Your task to perform on an android device: change the clock display to show seconds Image 0: 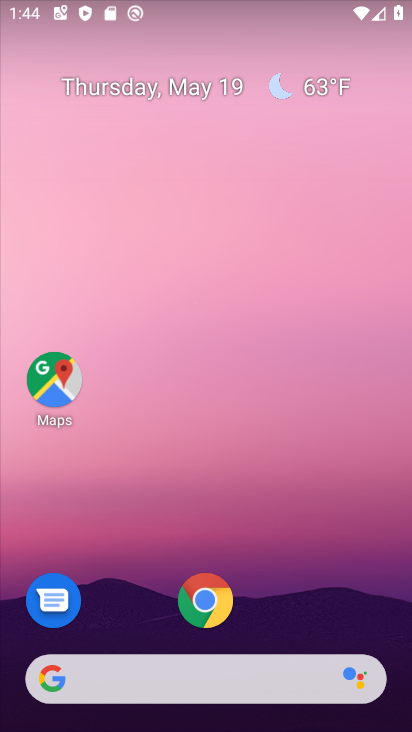
Step 0: drag from (386, 593) to (330, 189)
Your task to perform on an android device: change the clock display to show seconds Image 1: 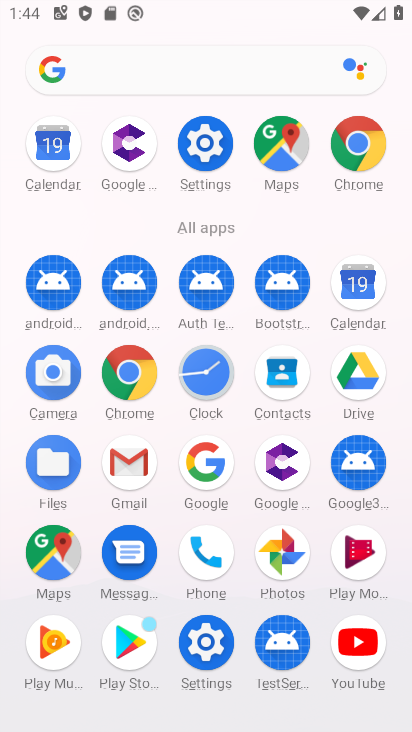
Step 1: click (204, 366)
Your task to perform on an android device: change the clock display to show seconds Image 2: 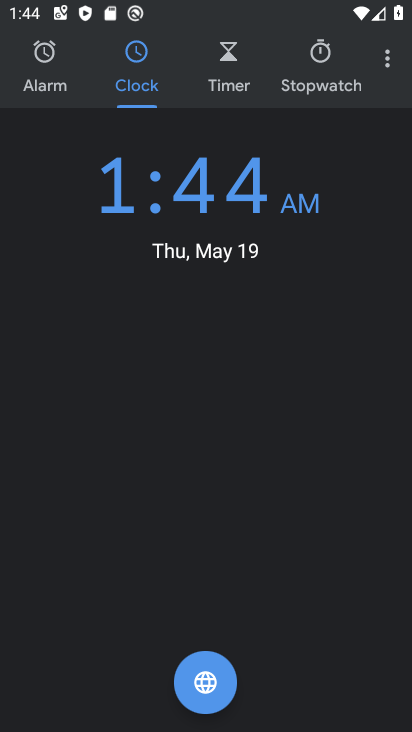
Step 2: click (387, 67)
Your task to perform on an android device: change the clock display to show seconds Image 3: 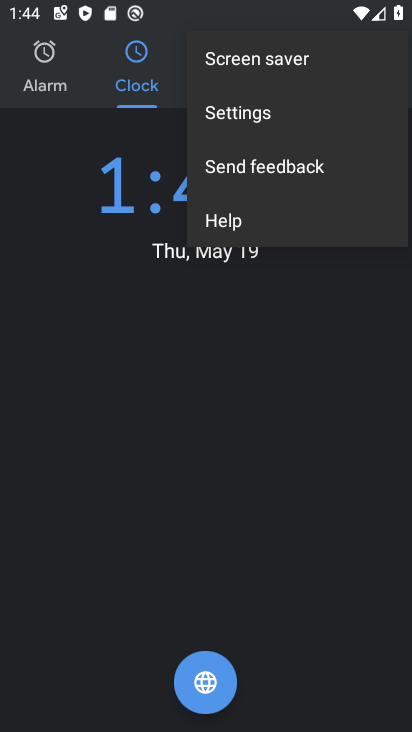
Step 3: click (272, 112)
Your task to perform on an android device: change the clock display to show seconds Image 4: 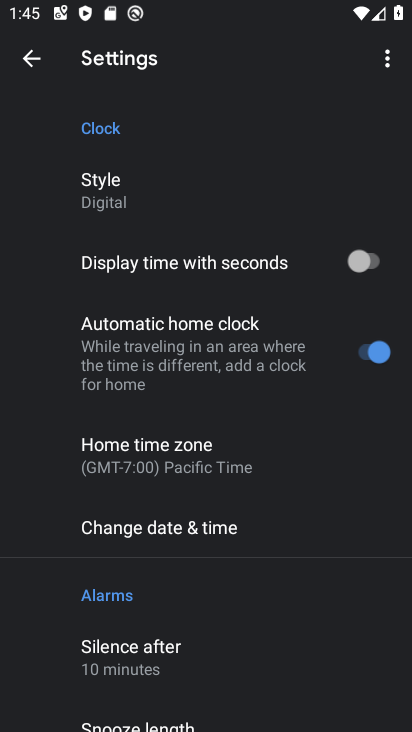
Step 4: click (357, 263)
Your task to perform on an android device: change the clock display to show seconds Image 5: 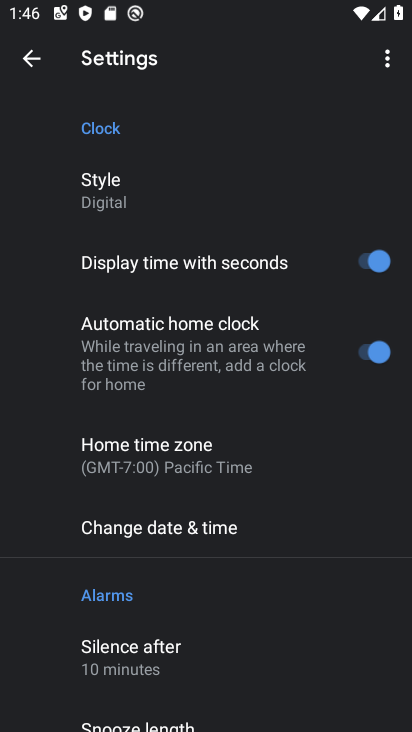
Step 5: task complete